Your task to perform on an android device: Open ESPN.com Image 0: 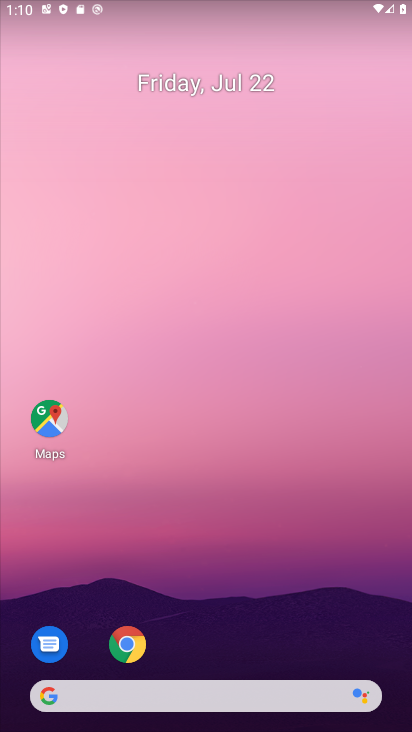
Step 0: press home button
Your task to perform on an android device: Open ESPN.com Image 1: 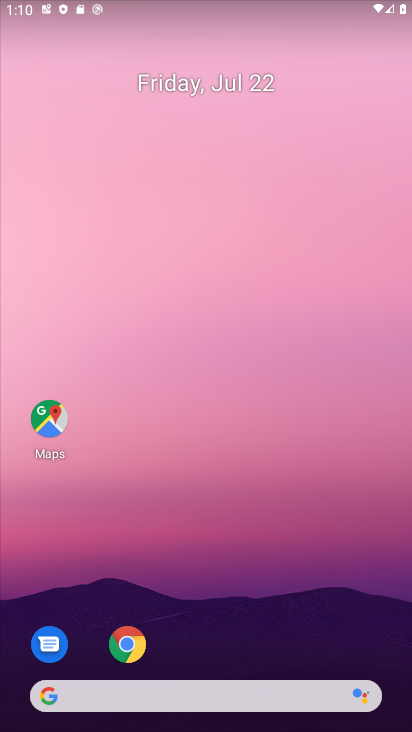
Step 1: click (130, 641)
Your task to perform on an android device: Open ESPN.com Image 2: 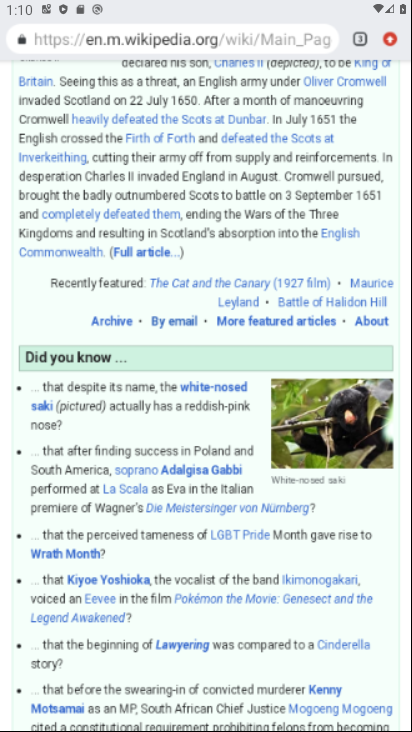
Step 2: drag from (308, 71) to (225, 608)
Your task to perform on an android device: Open ESPN.com Image 3: 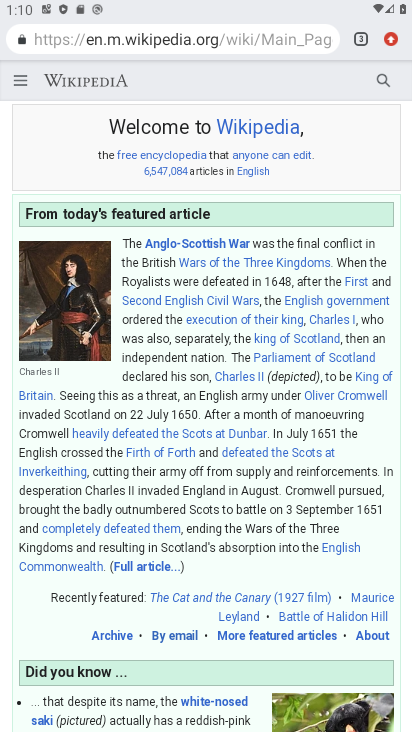
Step 3: click (358, 33)
Your task to perform on an android device: Open ESPN.com Image 4: 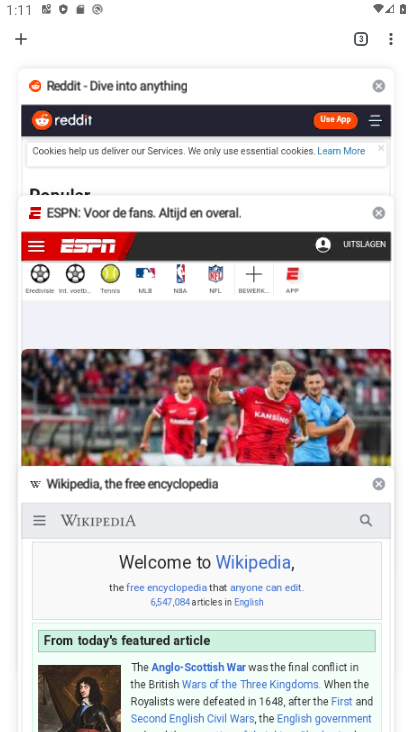
Step 4: click (149, 319)
Your task to perform on an android device: Open ESPN.com Image 5: 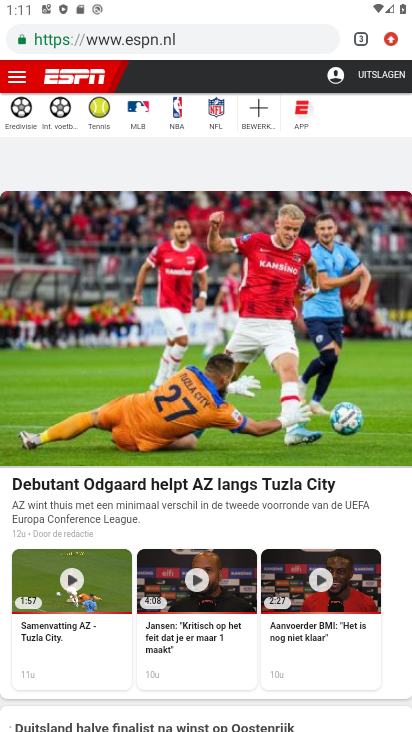
Step 5: task complete